Your task to perform on an android device: What's on my calendar today? Image 0: 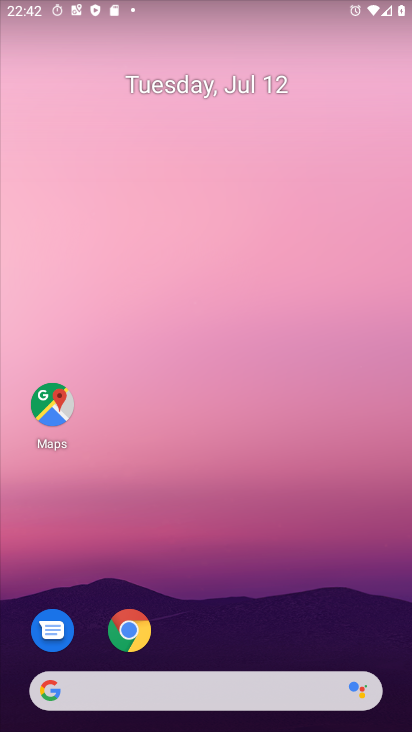
Step 0: drag from (243, 634) to (326, 70)
Your task to perform on an android device: What's on my calendar today? Image 1: 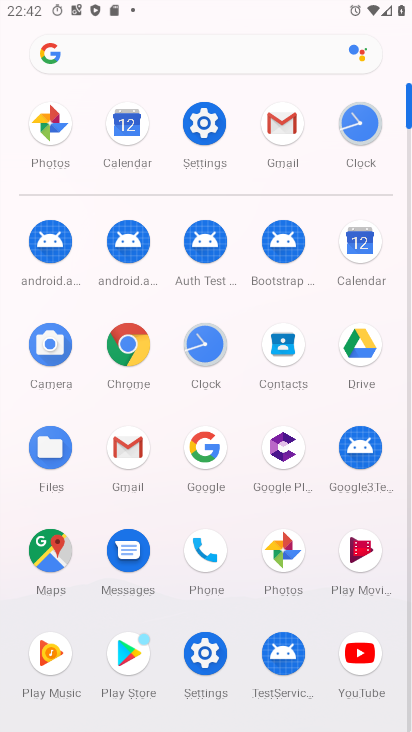
Step 1: click (364, 255)
Your task to perform on an android device: What's on my calendar today? Image 2: 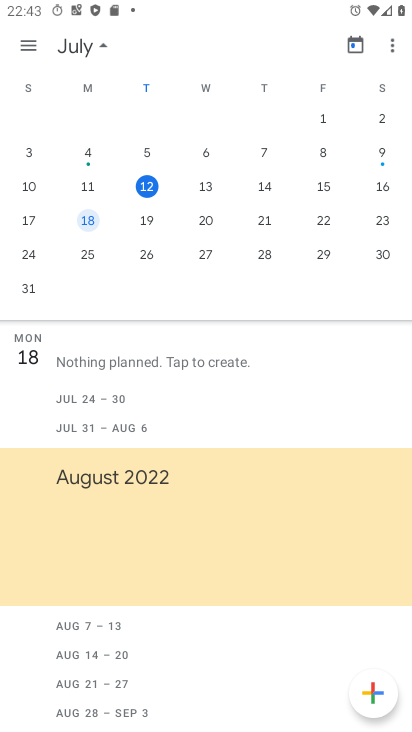
Step 2: click (144, 189)
Your task to perform on an android device: What's on my calendar today? Image 3: 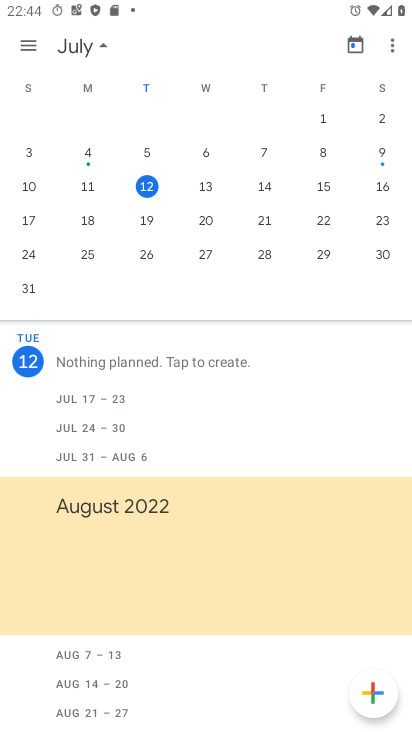
Step 3: task complete